Your task to perform on an android device: Go to battery settings Image 0: 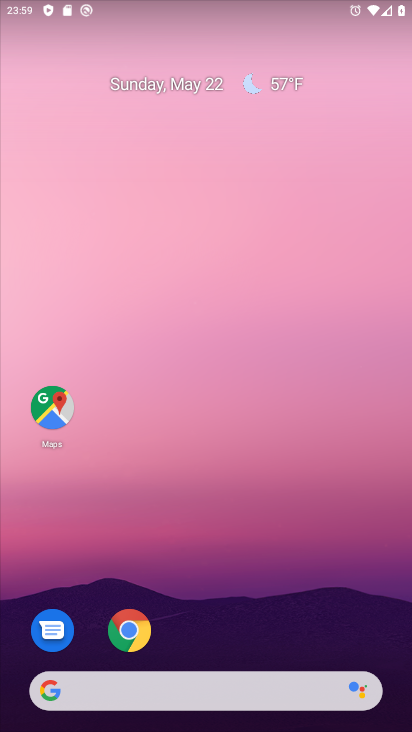
Step 0: drag from (266, 577) to (176, 93)
Your task to perform on an android device: Go to battery settings Image 1: 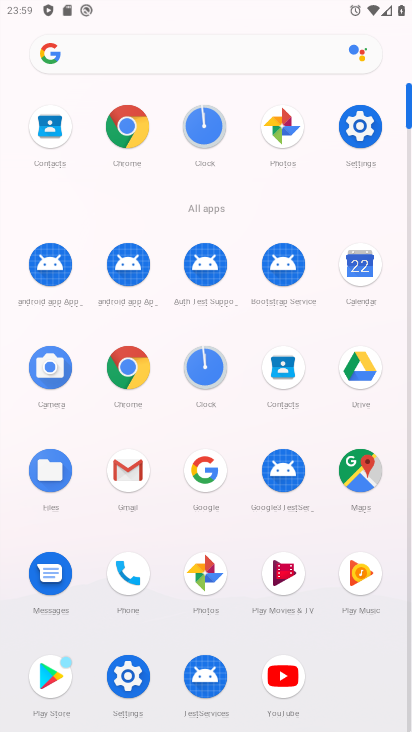
Step 1: click (344, 125)
Your task to perform on an android device: Go to battery settings Image 2: 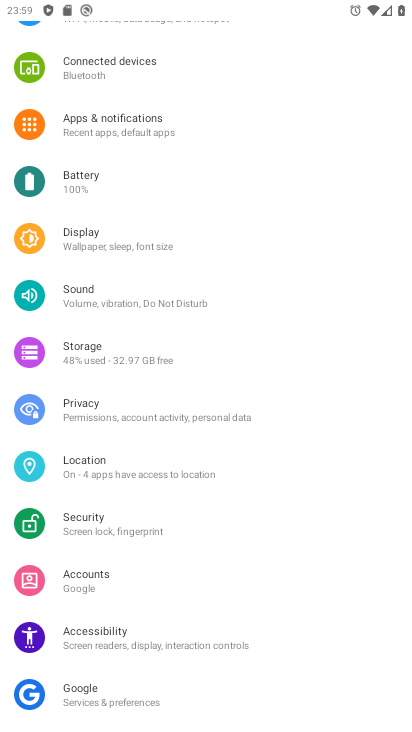
Step 2: click (96, 190)
Your task to perform on an android device: Go to battery settings Image 3: 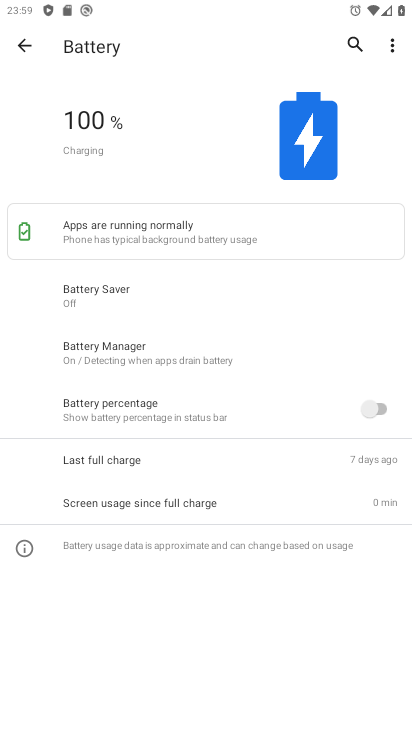
Step 3: task complete